Your task to perform on an android device: delete browsing data in the chrome app Image 0: 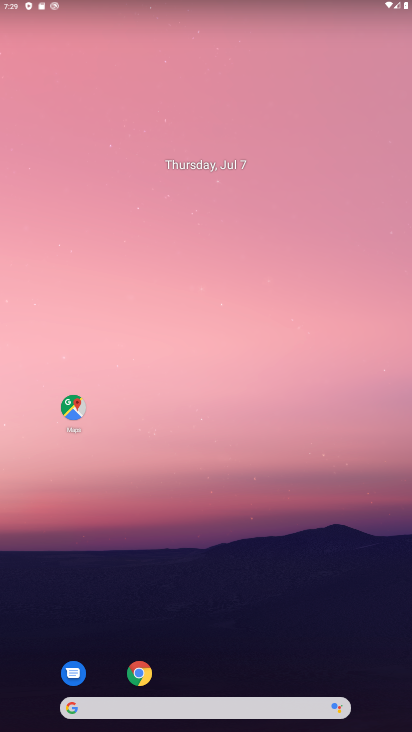
Step 0: click (140, 674)
Your task to perform on an android device: delete browsing data in the chrome app Image 1: 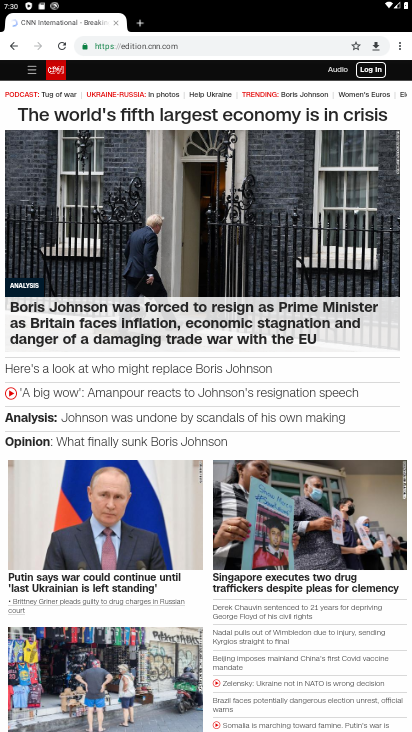
Step 1: click (401, 47)
Your task to perform on an android device: delete browsing data in the chrome app Image 2: 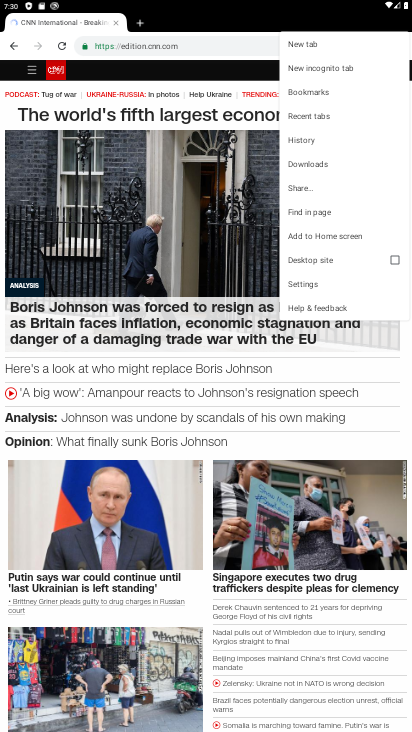
Step 2: click (310, 141)
Your task to perform on an android device: delete browsing data in the chrome app Image 3: 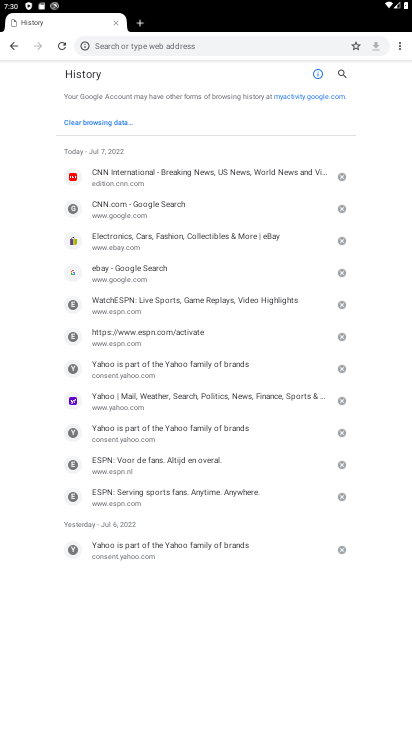
Step 3: click (117, 125)
Your task to perform on an android device: delete browsing data in the chrome app Image 4: 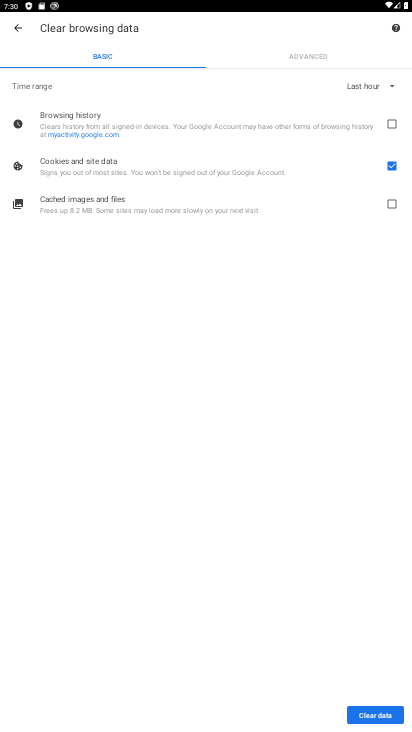
Step 4: click (396, 128)
Your task to perform on an android device: delete browsing data in the chrome app Image 5: 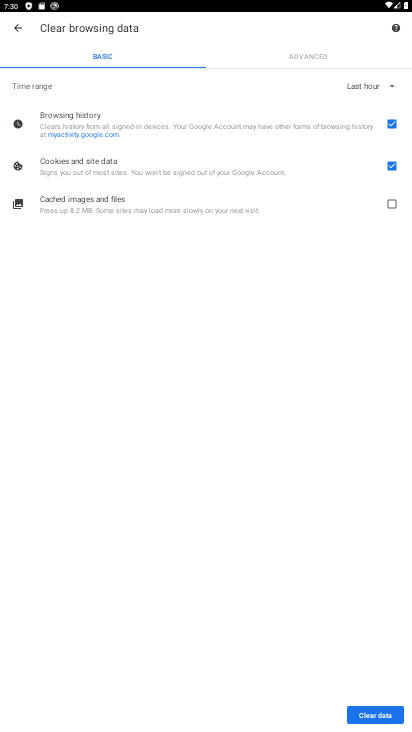
Step 5: click (394, 200)
Your task to perform on an android device: delete browsing data in the chrome app Image 6: 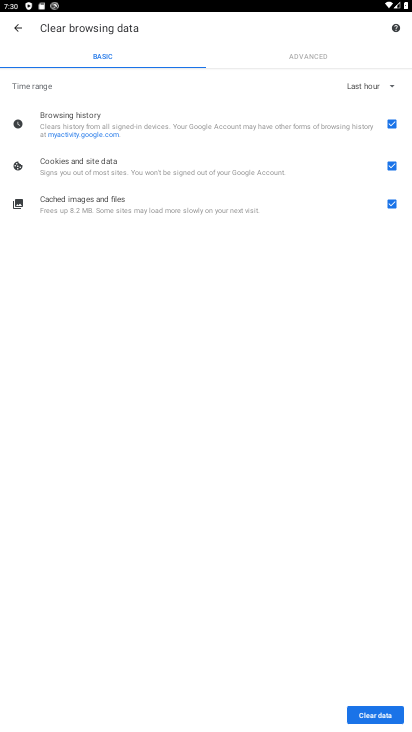
Step 6: click (376, 712)
Your task to perform on an android device: delete browsing data in the chrome app Image 7: 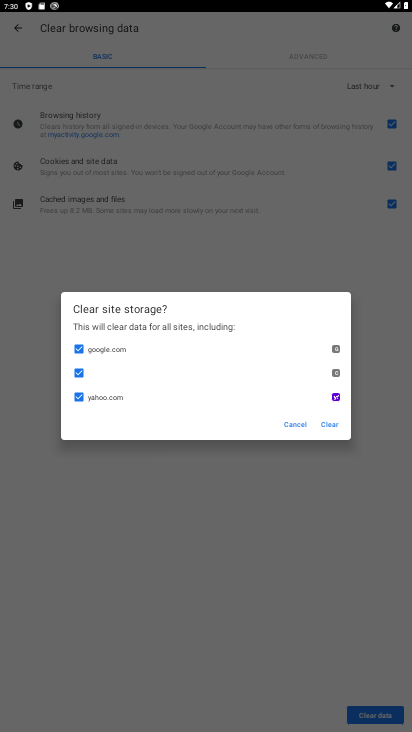
Step 7: click (328, 425)
Your task to perform on an android device: delete browsing data in the chrome app Image 8: 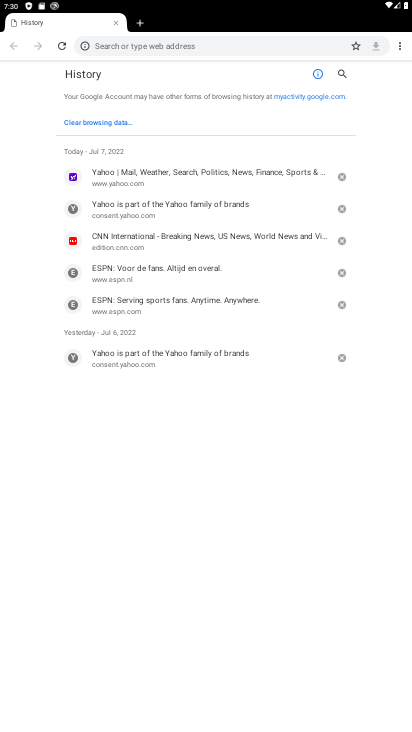
Step 8: task complete